Your task to perform on an android device: open the mobile data screen to see how much data has been used Image 0: 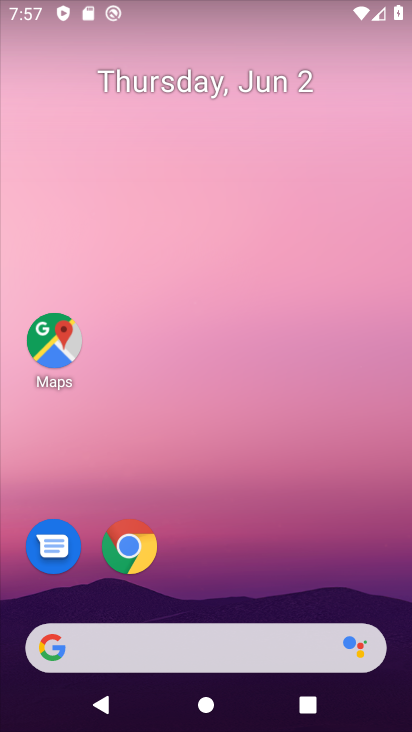
Step 0: drag from (244, 713) to (204, 110)
Your task to perform on an android device: open the mobile data screen to see how much data has been used Image 1: 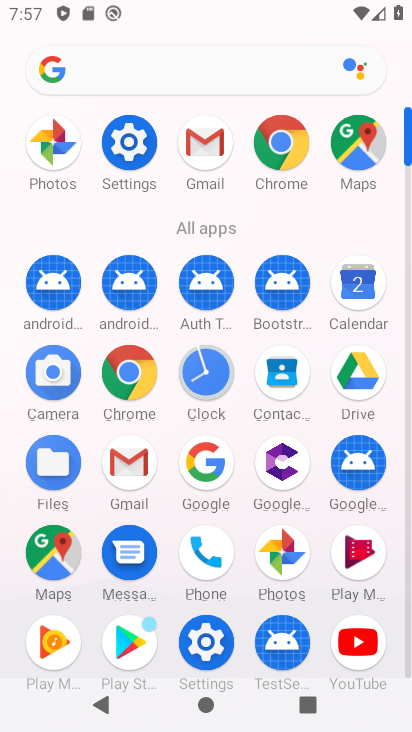
Step 1: click (125, 143)
Your task to perform on an android device: open the mobile data screen to see how much data has been used Image 2: 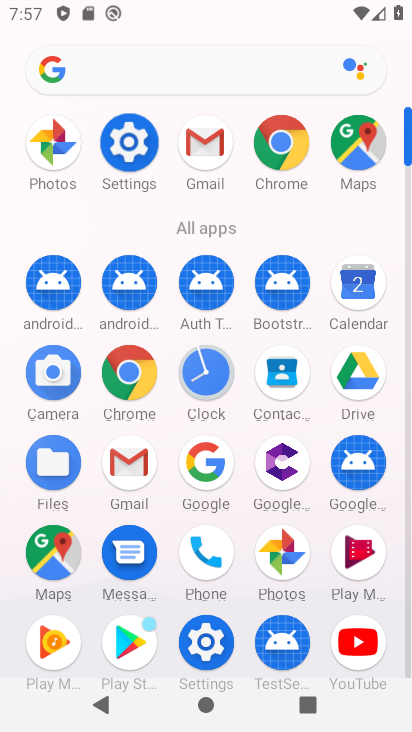
Step 2: click (125, 143)
Your task to perform on an android device: open the mobile data screen to see how much data has been used Image 3: 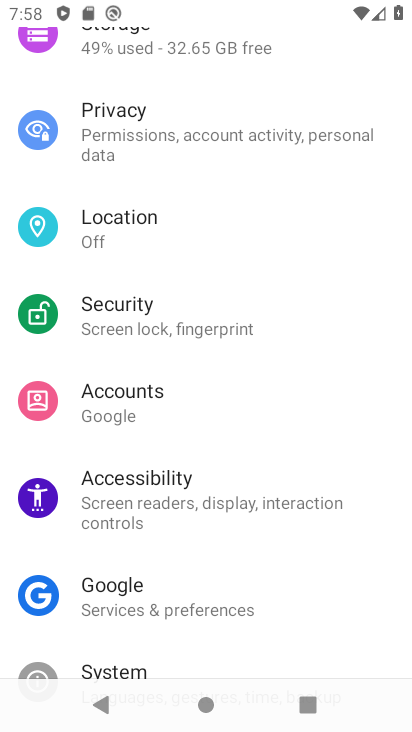
Step 3: click (207, 485)
Your task to perform on an android device: open the mobile data screen to see how much data has been used Image 4: 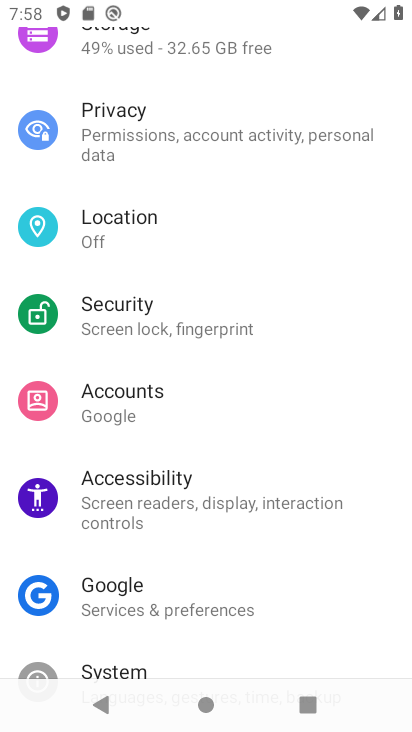
Step 4: drag from (191, 296) to (201, 477)
Your task to perform on an android device: open the mobile data screen to see how much data has been used Image 5: 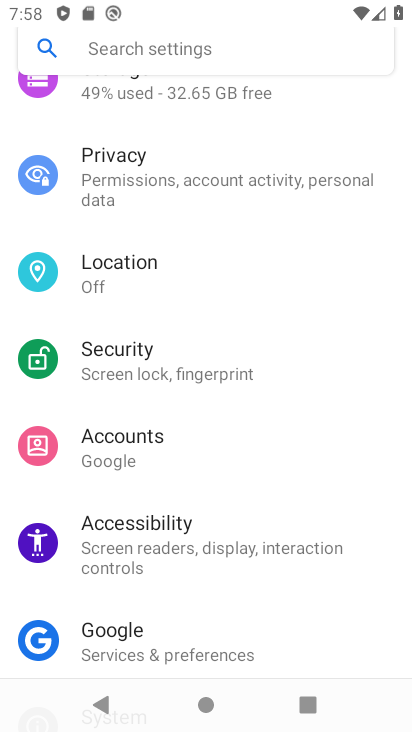
Step 5: drag from (142, 182) to (150, 511)
Your task to perform on an android device: open the mobile data screen to see how much data has been used Image 6: 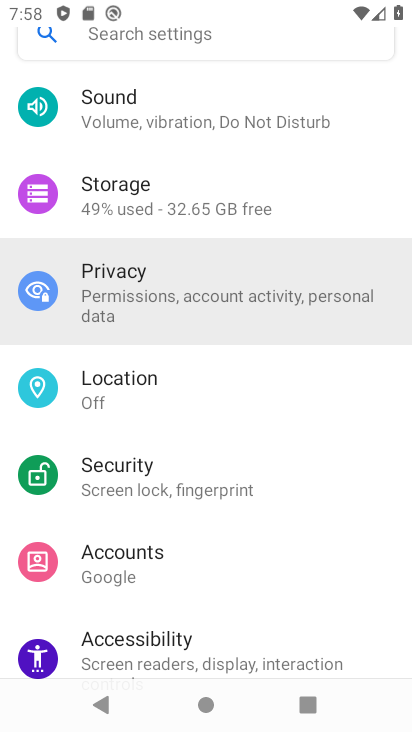
Step 6: drag from (139, 163) to (198, 539)
Your task to perform on an android device: open the mobile data screen to see how much data has been used Image 7: 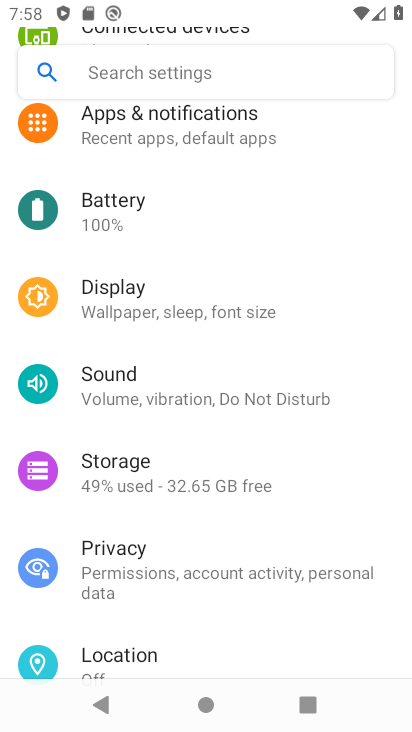
Step 7: drag from (158, 126) to (158, 515)
Your task to perform on an android device: open the mobile data screen to see how much data has been used Image 8: 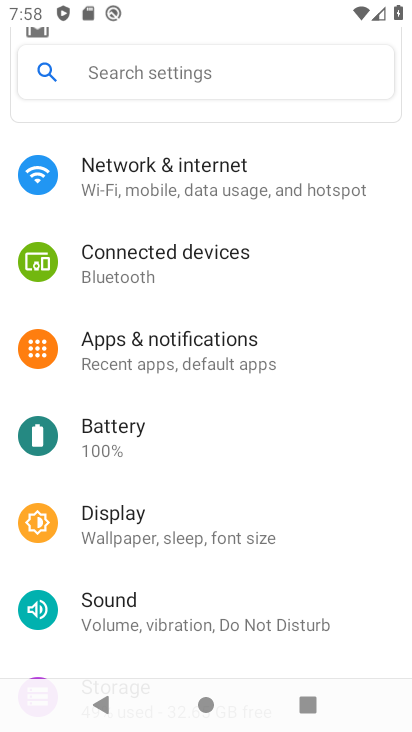
Step 8: click (152, 186)
Your task to perform on an android device: open the mobile data screen to see how much data has been used Image 9: 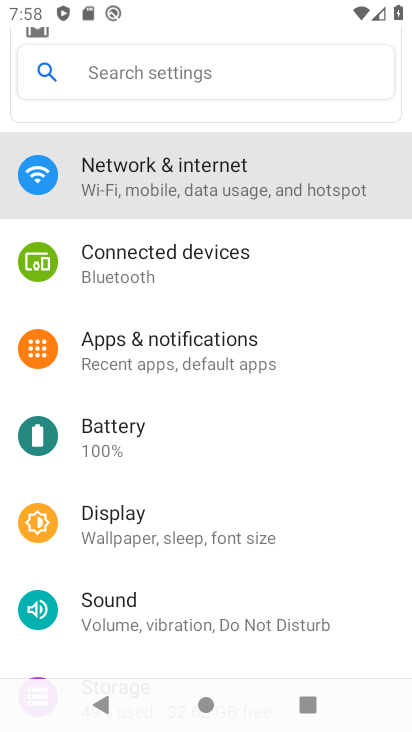
Step 9: click (152, 186)
Your task to perform on an android device: open the mobile data screen to see how much data has been used Image 10: 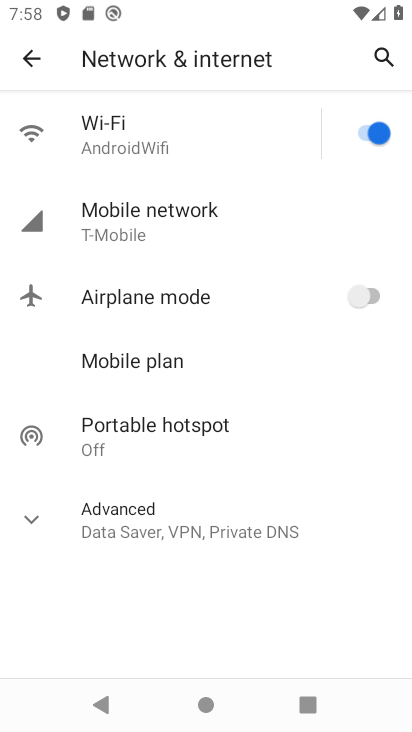
Step 10: click (142, 217)
Your task to perform on an android device: open the mobile data screen to see how much data has been used Image 11: 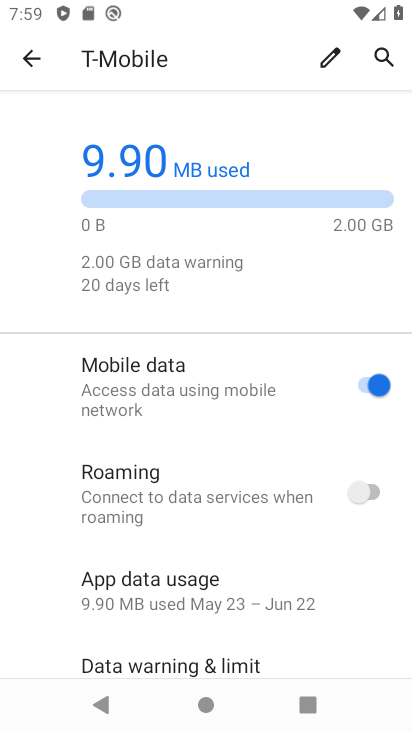
Step 11: task complete